Your task to perform on an android device: toggle show notifications on the lock screen Image 0: 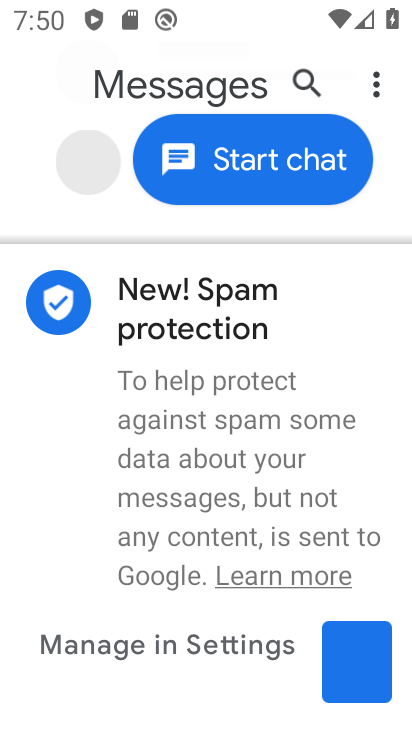
Step 0: press home button
Your task to perform on an android device: toggle show notifications on the lock screen Image 1: 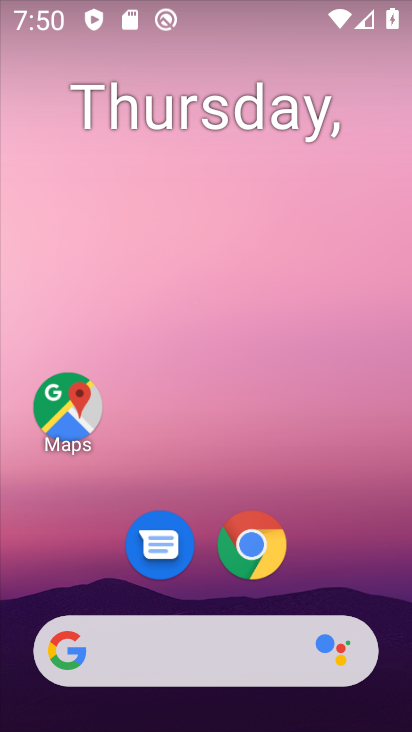
Step 1: drag from (296, 478) to (277, 101)
Your task to perform on an android device: toggle show notifications on the lock screen Image 2: 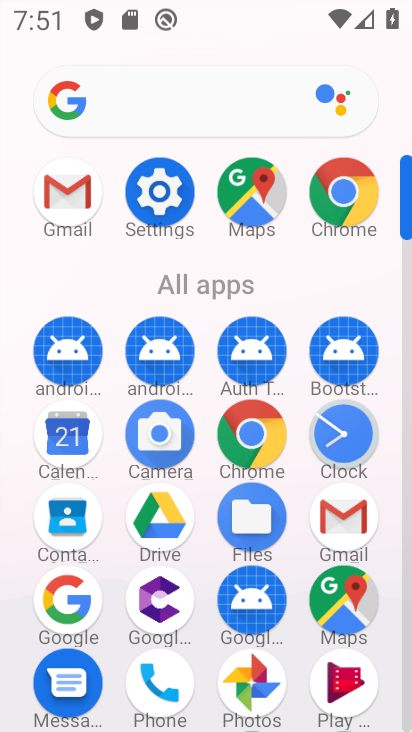
Step 2: click (157, 167)
Your task to perform on an android device: toggle show notifications on the lock screen Image 3: 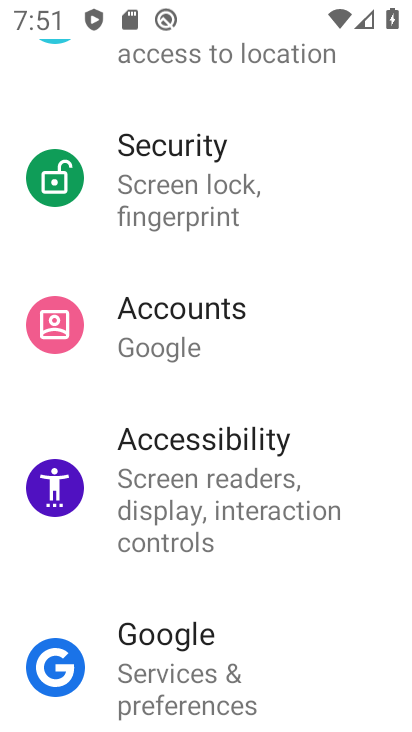
Step 3: drag from (229, 560) to (203, 723)
Your task to perform on an android device: toggle show notifications on the lock screen Image 4: 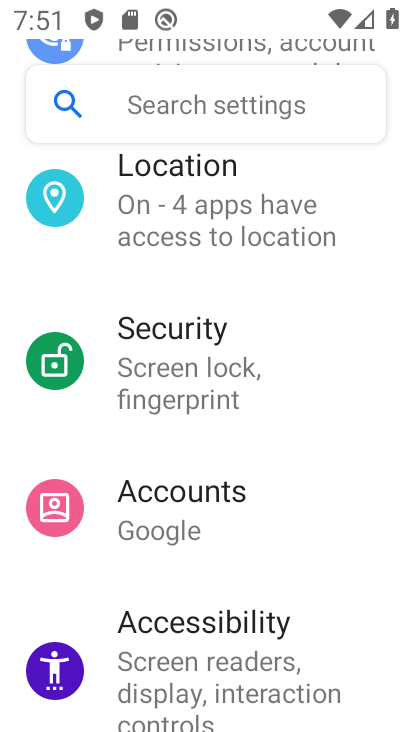
Step 4: drag from (266, 185) to (243, 713)
Your task to perform on an android device: toggle show notifications on the lock screen Image 5: 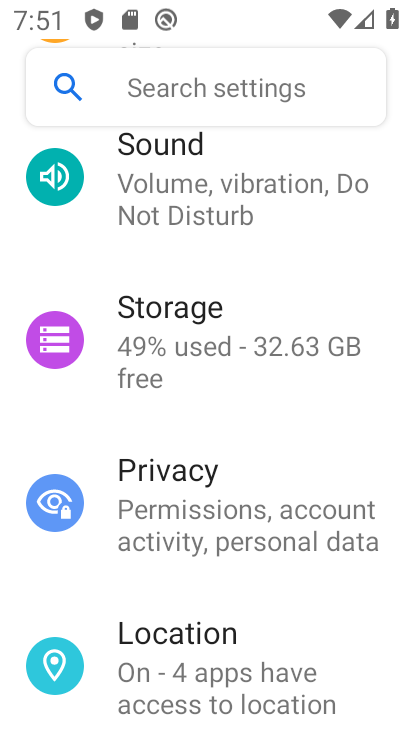
Step 5: drag from (193, 221) to (145, 672)
Your task to perform on an android device: toggle show notifications on the lock screen Image 6: 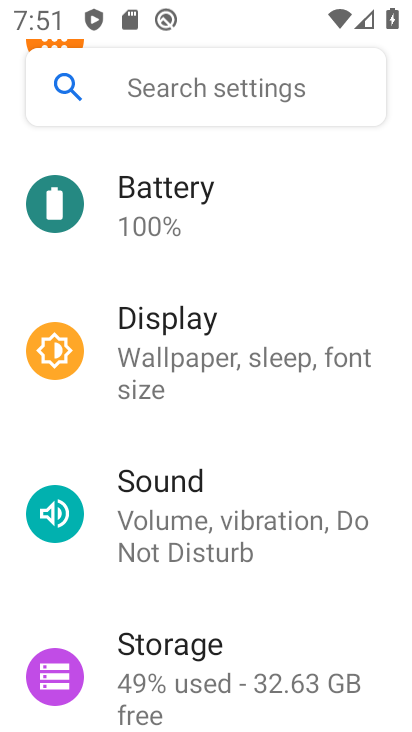
Step 6: drag from (176, 246) to (199, 701)
Your task to perform on an android device: toggle show notifications on the lock screen Image 7: 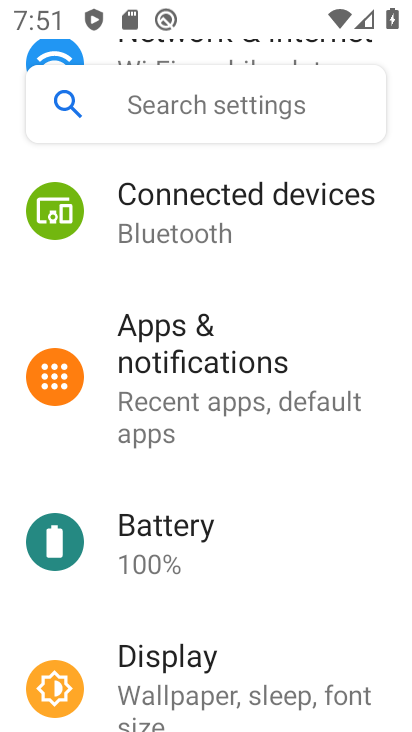
Step 7: click (212, 366)
Your task to perform on an android device: toggle show notifications on the lock screen Image 8: 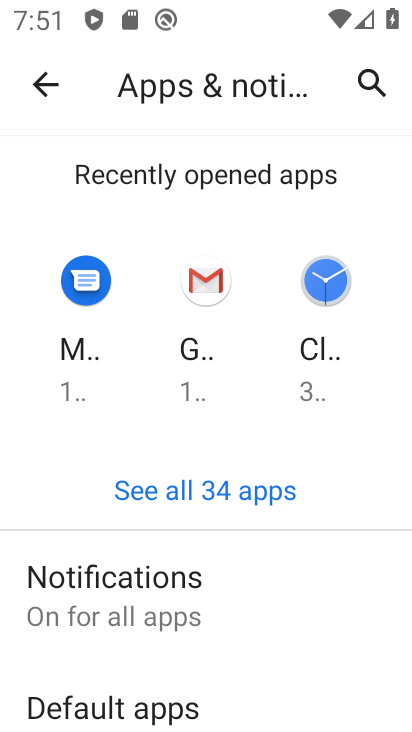
Step 8: drag from (240, 668) to (223, 179)
Your task to perform on an android device: toggle show notifications on the lock screen Image 9: 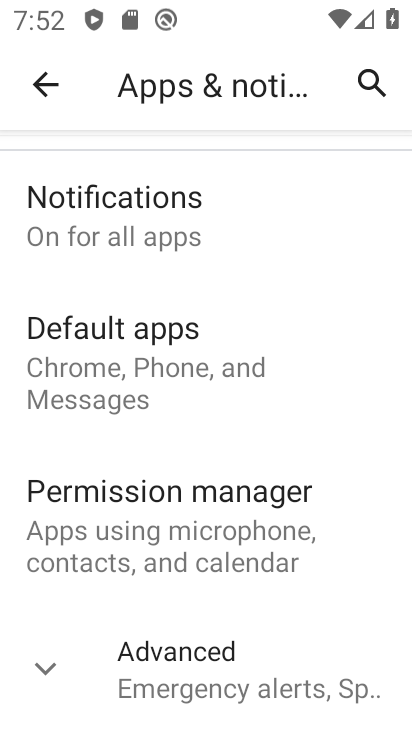
Step 9: drag from (226, 629) to (260, 169)
Your task to perform on an android device: toggle show notifications on the lock screen Image 10: 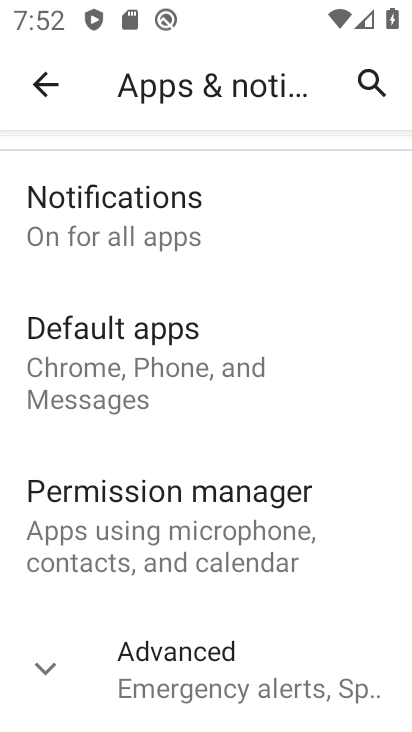
Step 10: drag from (193, 152) to (202, 363)
Your task to perform on an android device: toggle show notifications on the lock screen Image 11: 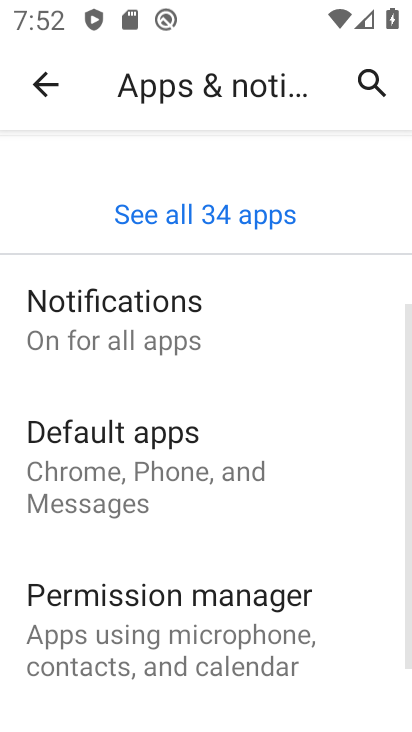
Step 11: click (163, 316)
Your task to perform on an android device: toggle show notifications on the lock screen Image 12: 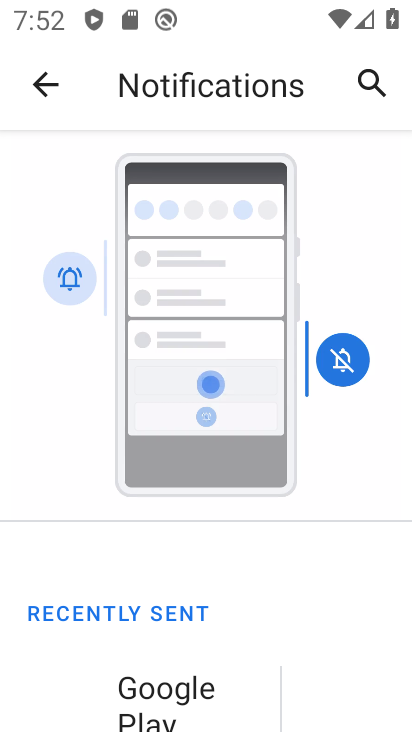
Step 12: drag from (200, 584) to (324, 181)
Your task to perform on an android device: toggle show notifications on the lock screen Image 13: 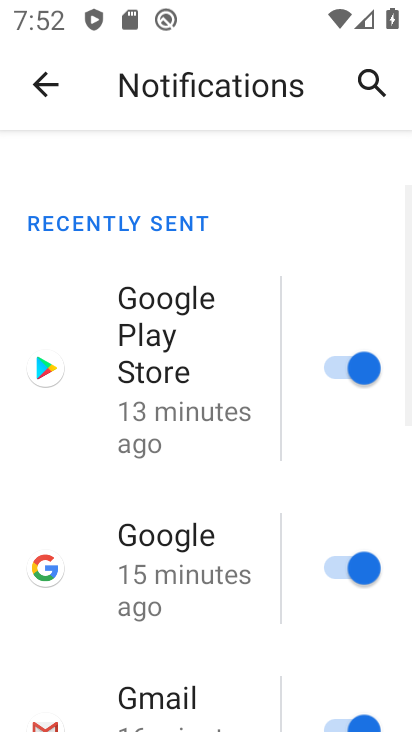
Step 13: drag from (150, 558) to (235, 160)
Your task to perform on an android device: toggle show notifications on the lock screen Image 14: 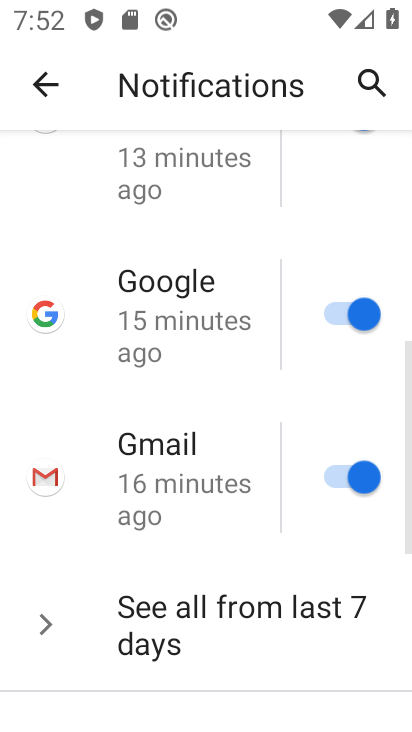
Step 14: drag from (254, 581) to (298, 157)
Your task to perform on an android device: toggle show notifications on the lock screen Image 15: 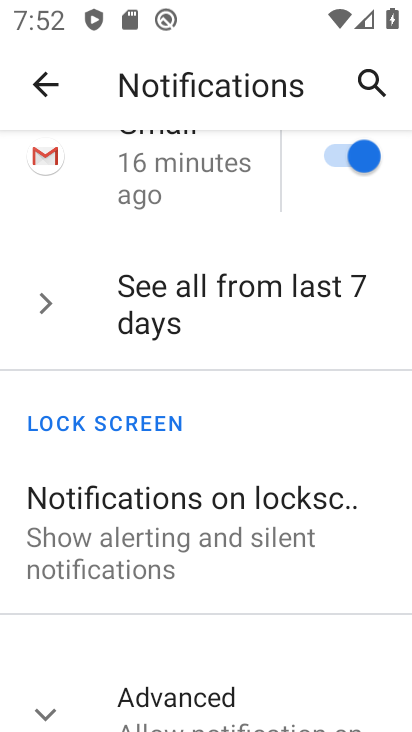
Step 15: click (214, 534)
Your task to perform on an android device: toggle show notifications on the lock screen Image 16: 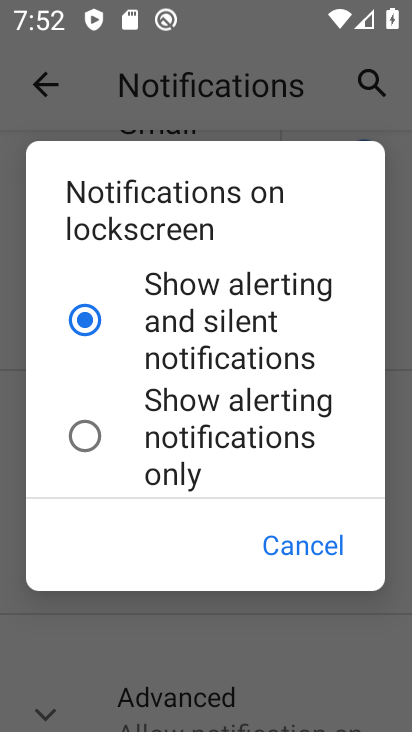
Step 16: drag from (144, 397) to (168, 166)
Your task to perform on an android device: toggle show notifications on the lock screen Image 17: 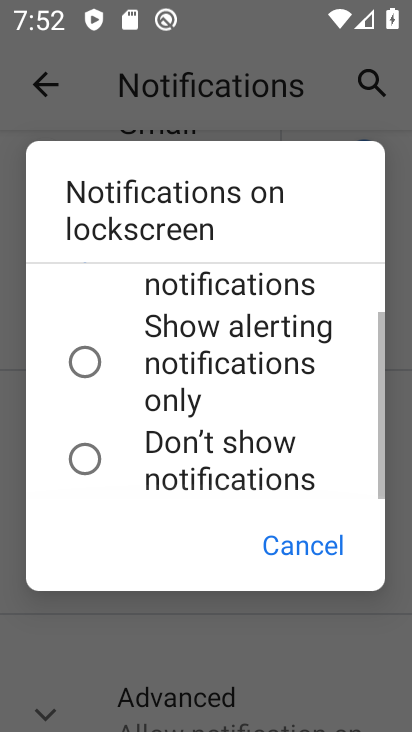
Step 17: drag from (168, 426) to (189, 307)
Your task to perform on an android device: toggle show notifications on the lock screen Image 18: 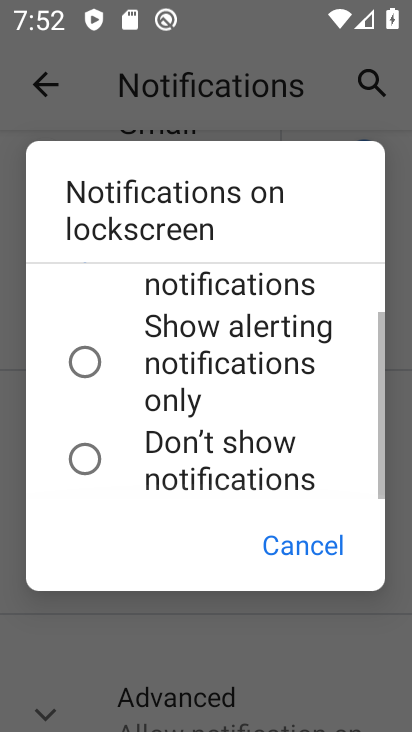
Step 18: click (69, 449)
Your task to perform on an android device: toggle show notifications on the lock screen Image 19: 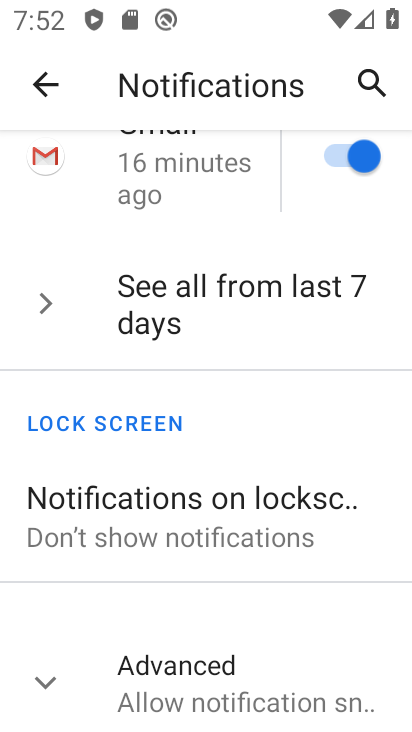
Step 19: task complete